Your task to perform on an android device: delete the emails in spam in the gmail app Image 0: 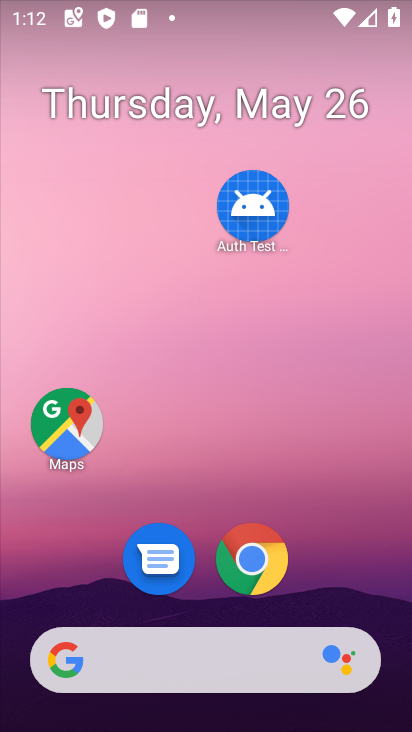
Step 0: click (397, 93)
Your task to perform on an android device: delete the emails in spam in the gmail app Image 1: 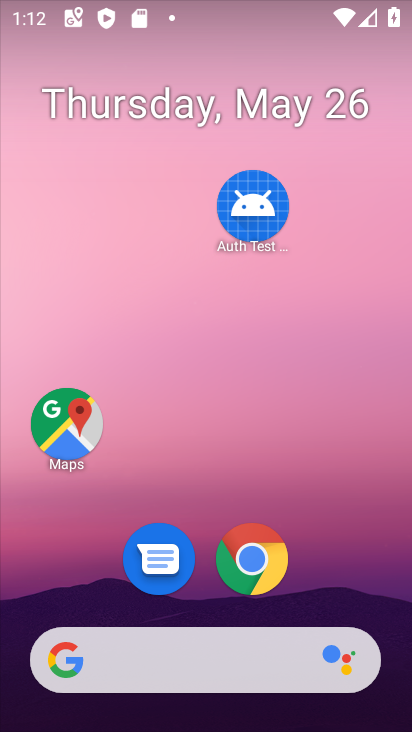
Step 1: drag from (320, 539) to (288, 91)
Your task to perform on an android device: delete the emails in spam in the gmail app Image 2: 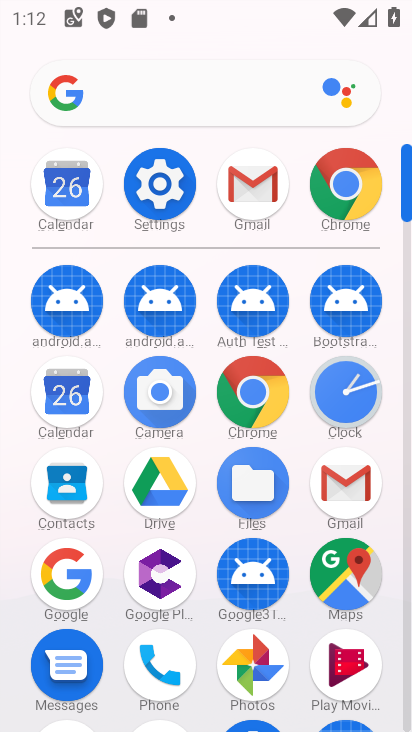
Step 2: click (245, 177)
Your task to perform on an android device: delete the emails in spam in the gmail app Image 3: 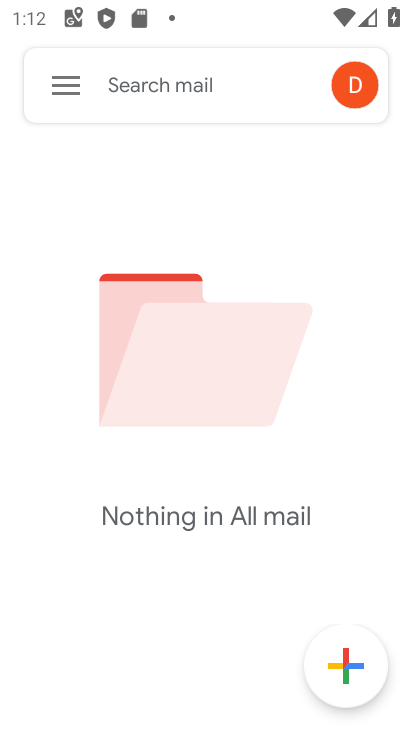
Step 3: click (76, 89)
Your task to perform on an android device: delete the emails in spam in the gmail app Image 4: 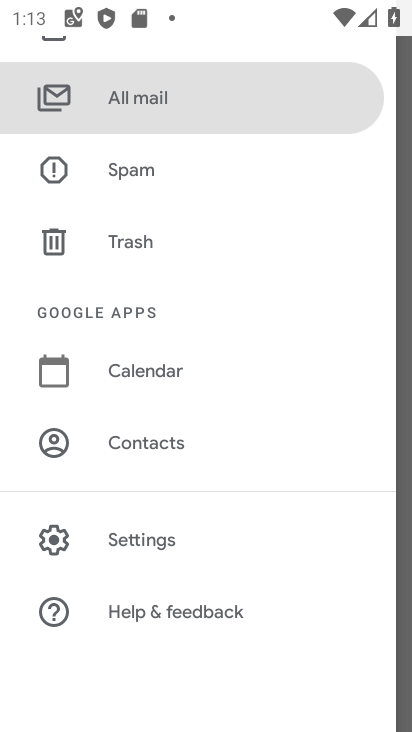
Step 4: click (171, 167)
Your task to perform on an android device: delete the emails in spam in the gmail app Image 5: 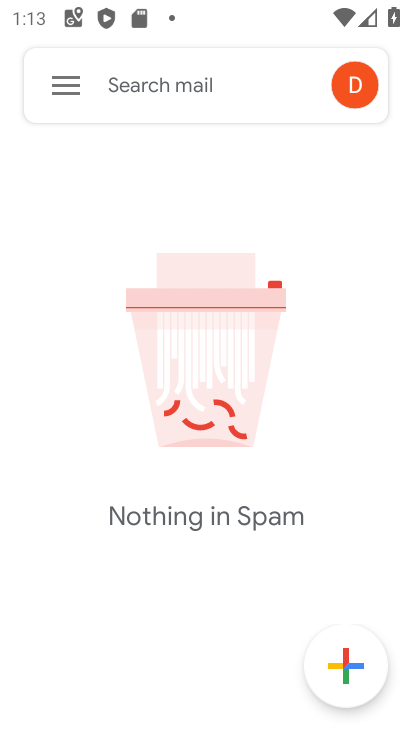
Step 5: task complete